Your task to perform on an android device: Go to Yahoo.com Image 0: 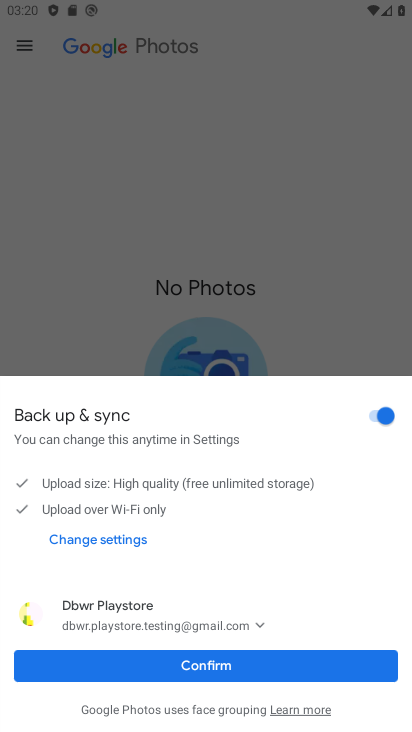
Step 0: press home button
Your task to perform on an android device: Go to Yahoo.com Image 1: 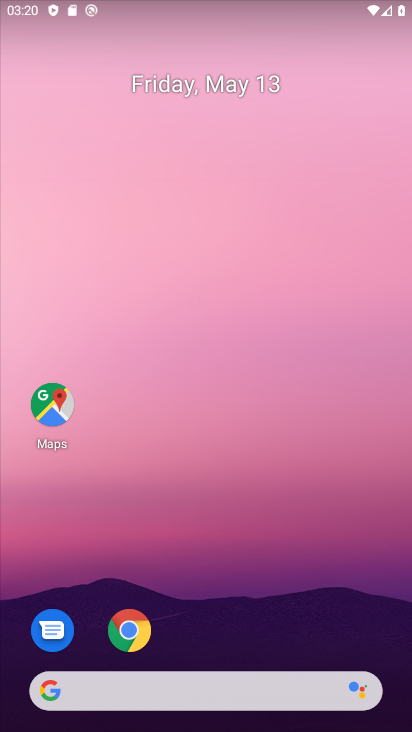
Step 1: drag from (229, 666) to (200, 87)
Your task to perform on an android device: Go to Yahoo.com Image 2: 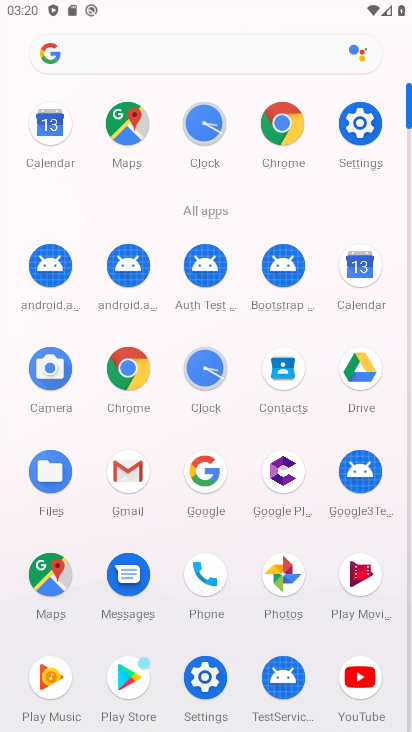
Step 2: click (276, 124)
Your task to perform on an android device: Go to Yahoo.com Image 3: 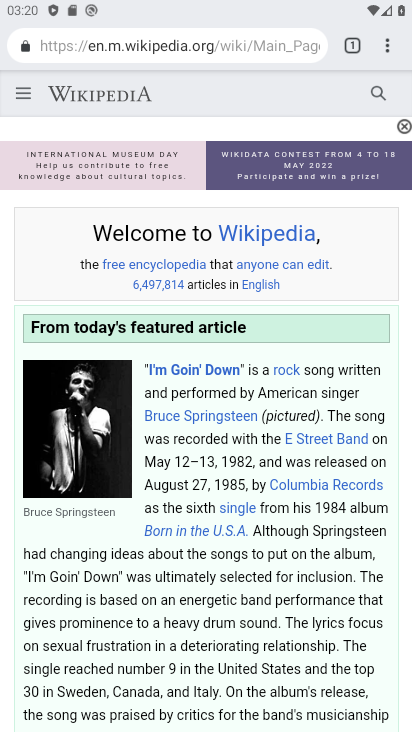
Step 3: click (348, 49)
Your task to perform on an android device: Go to Yahoo.com Image 4: 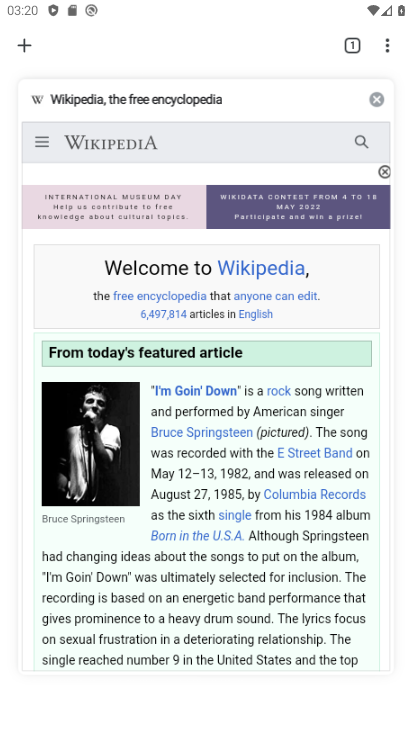
Step 4: click (24, 47)
Your task to perform on an android device: Go to Yahoo.com Image 5: 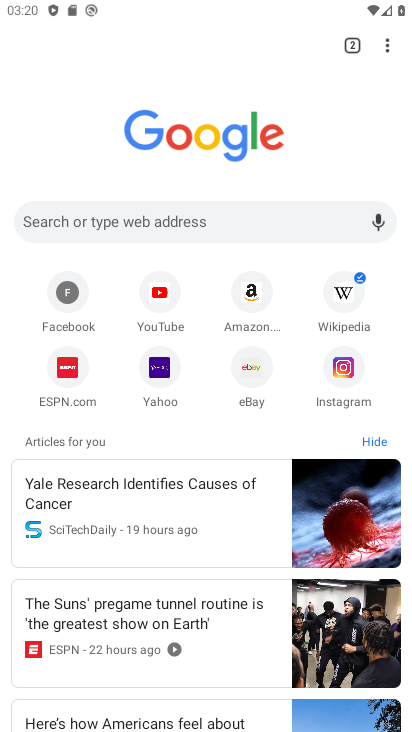
Step 5: click (162, 374)
Your task to perform on an android device: Go to Yahoo.com Image 6: 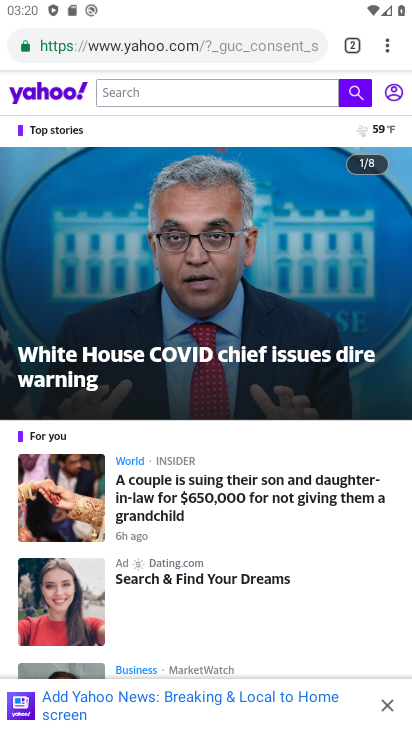
Step 6: task complete